Your task to perform on an android device: see tabs open on other devices in the chrome app Image 0: 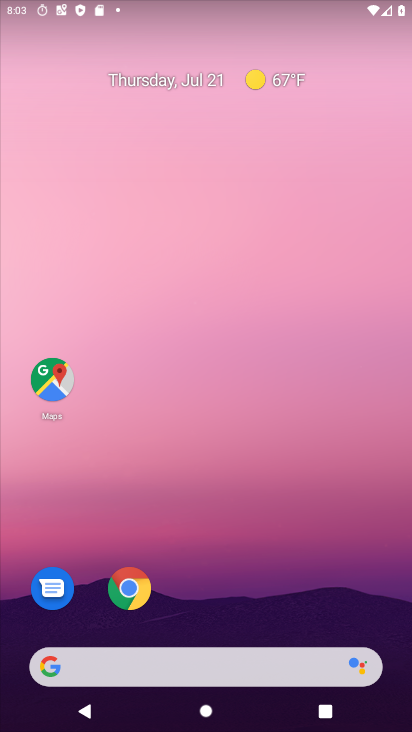
Step 0: click (126, 608)
Your task to perform on an android device: see tabs open on other devices in the chrome app Image 1: 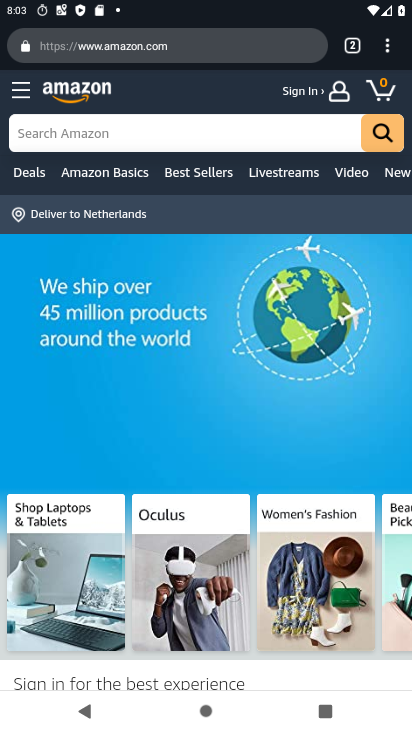
Step 1: click (384, 47)
Your task to perform on an android device: see tabs open on other devices in the chrome app Image 2: 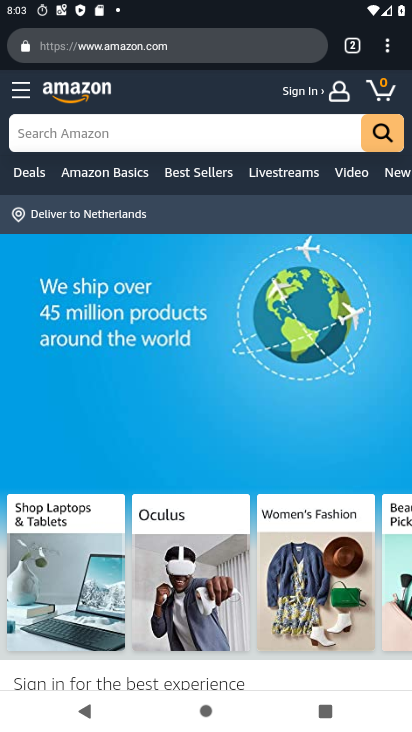
Step 2: click (384, 47)
Your task to perform on an android device: see tabs open on other devices in the chrome app Image 3: 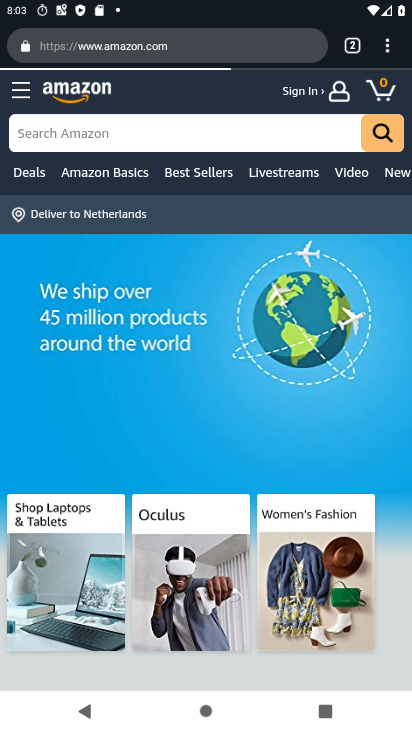
Step 3: click (384, 47)
Your task to perform on an android device: see tabs open on other devices in the chrome app Image 4: 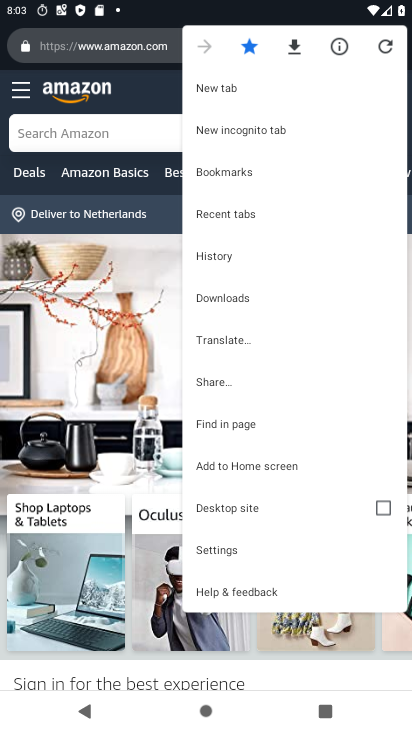
Step 4: click (67, 396)
Your task to perform on an android device: see tabs open on other devices in the chrome app Image 5: 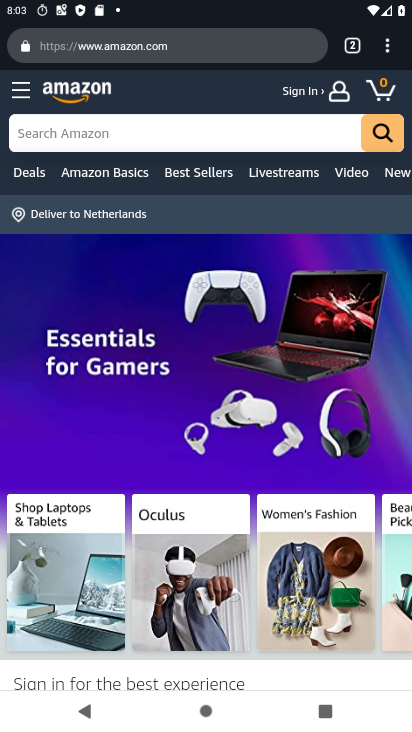
Step 5: task complete